Your task to perform on an android device: toggle wifi Image 0: 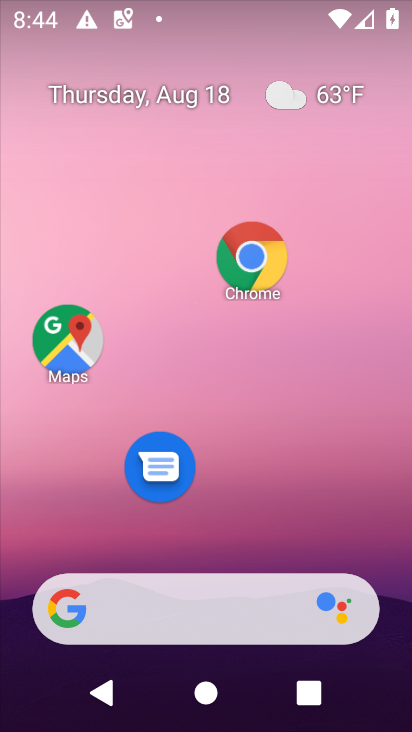
Step 0: drag from (330, 506) to (330, 7)
Your task to perform on an android device: toggle wifi Image 1: 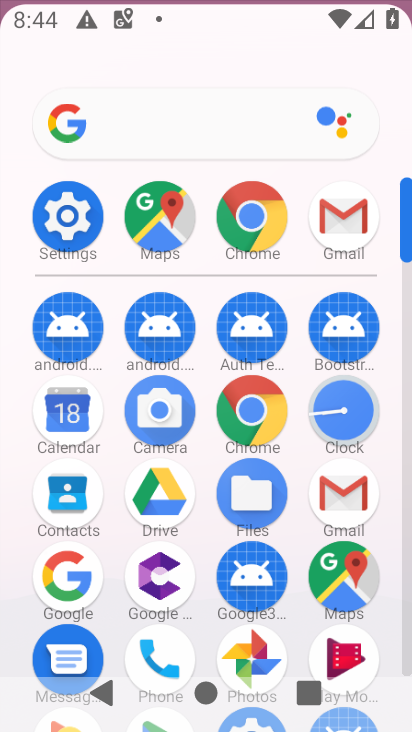
Step 1: task complete